Your task to perform on an android device: snooze an email in the gmail app Image 0: 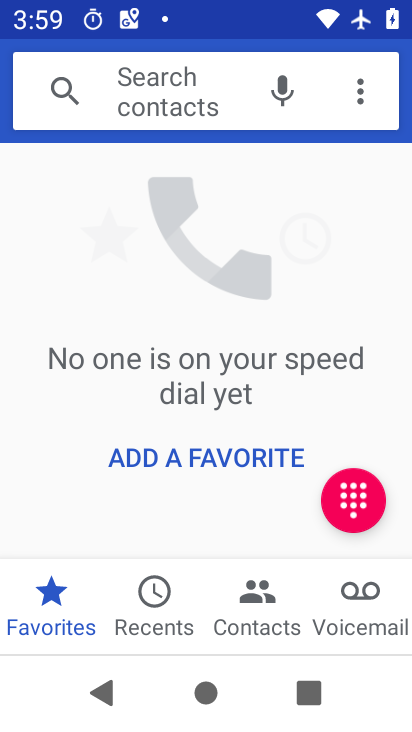
Step 0: drag from (221, 500) to (326, 128)
Your task to perform on an android device: snooze an email in the gmail app Image 1: 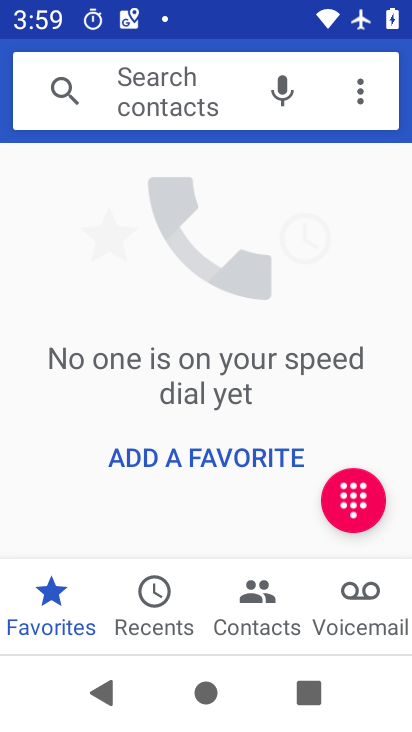
Step 1: drag from (172, 518) to (262, 38)
Your task to perform on an android device: snooze an email in the gmail app Image 2: 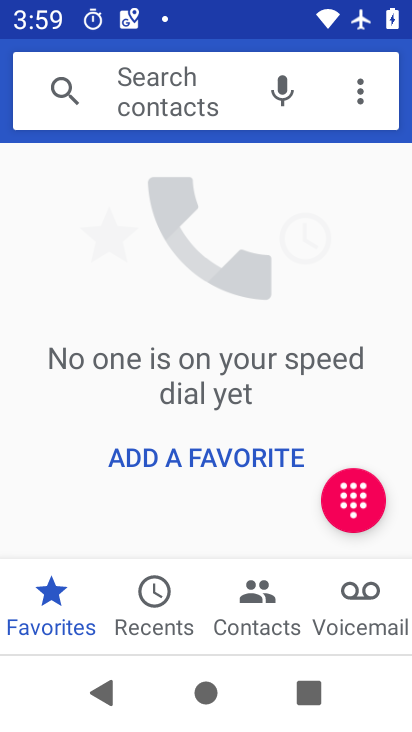
Step 2: press home button
Your task to perform on an android device: snooze an email in the gmail app Image 3: 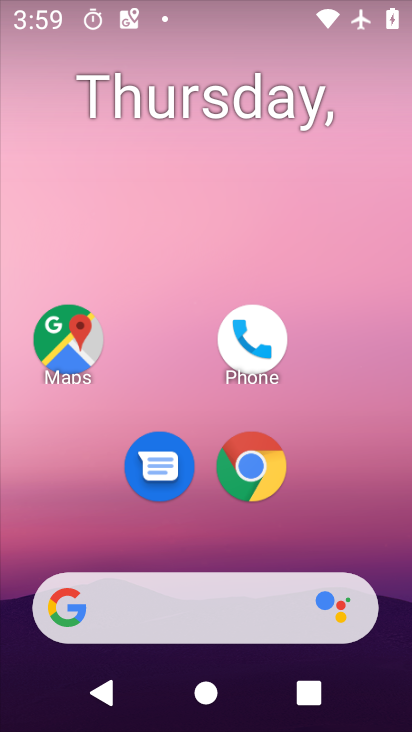
Step 3: drag from (202, 538) to (226, 73)
Your task to perform on an android device: snooze an email in the gmail app Image 4: 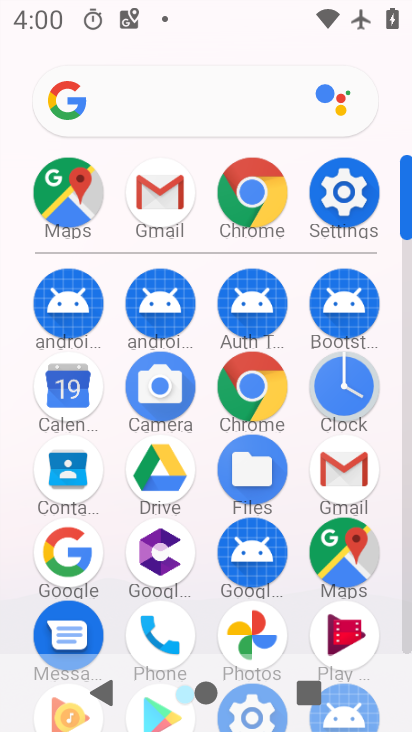
Step 4: click (356, 442)
Your task to perform on an android device: snooze an email in the gmail app Image 5: 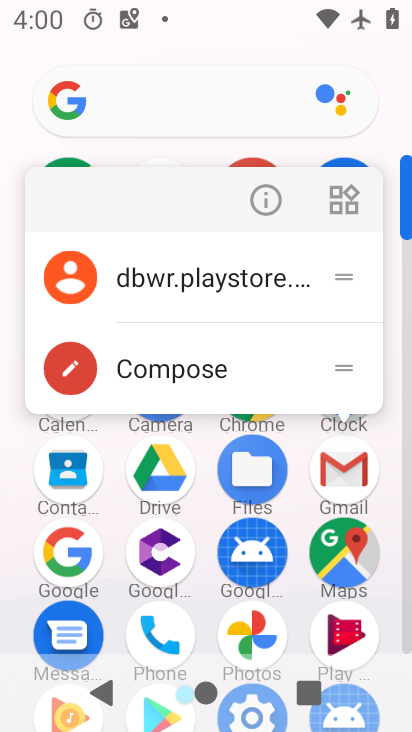
Step 5: click (187, 299)
Your task to perform on an android device: snooze an email in the gmail app Image 6: 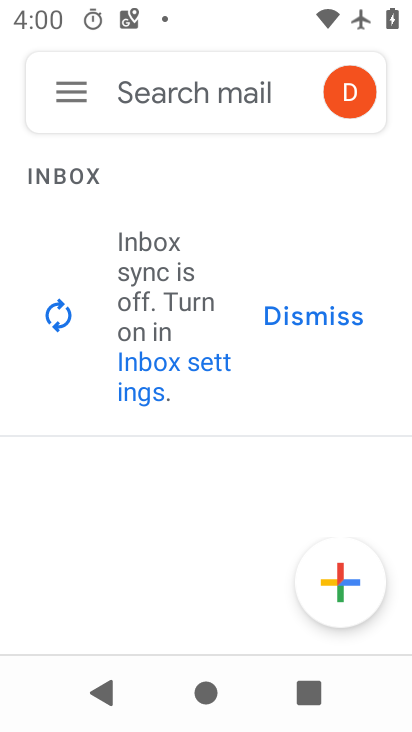
Step 6: click (195, 168)
Your task to perform on an android device: snooze an email in the gmail app Image 7: 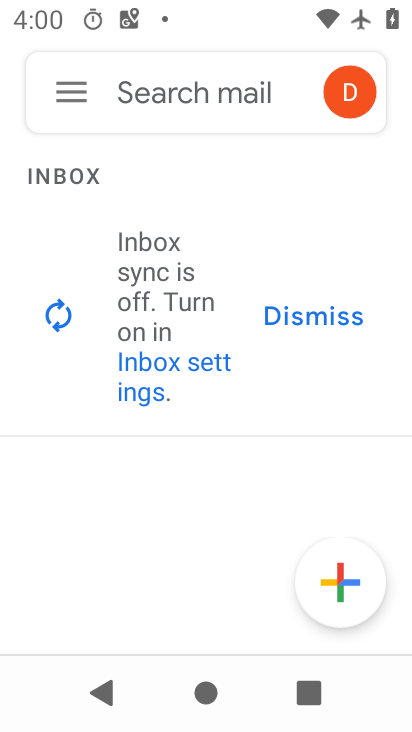
Step 7: click (67, 84)
Your task to perform on an android device: snooze an email in the gmail app Image 8: 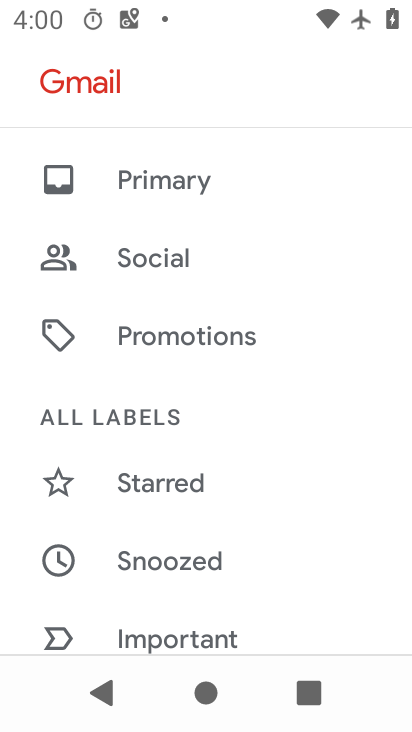
Step 8: click (154, 561)
Your task to perform on an android device: snooze an email in the gmail app Image 9: 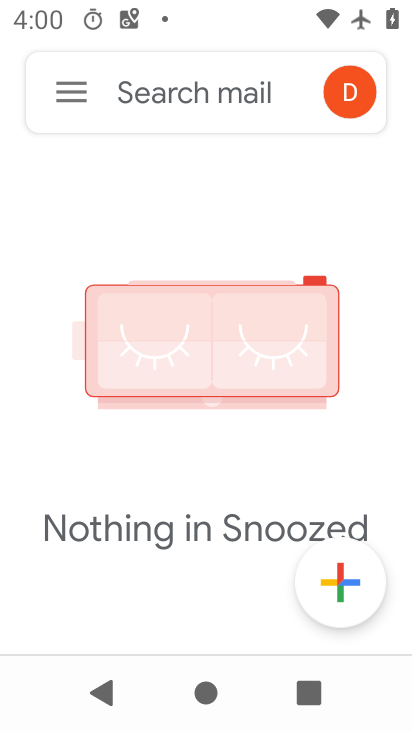
Step 9: drag from (147, 562) to (198, 2)
Your task to perform on an android device: snooze an email in the gmail app Image 10: 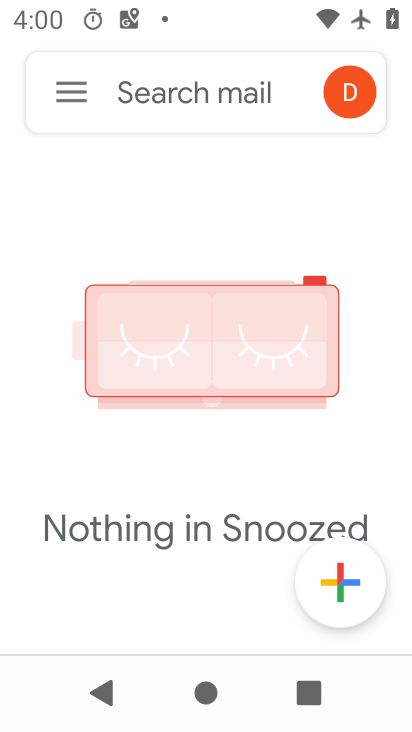
Step 10: click (67, 98)
Your task to perform on an android device: snooze an email in the gmail app Image 11: 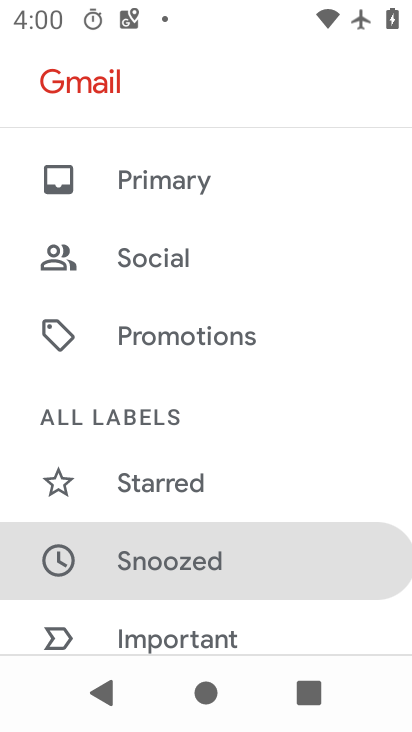
Step 11: click (152, 564)
Your task to perform on an android device: snooze an email in the gmail app Image 12: 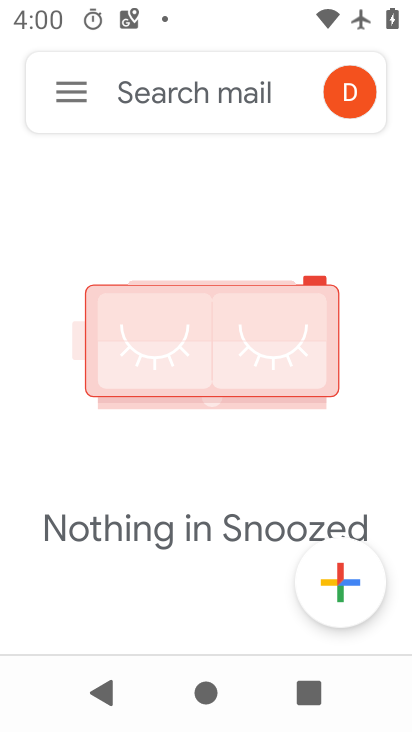
Step 12: task complete